Your task to perform on an android device: open a bookmark in the chrome app Image 0: 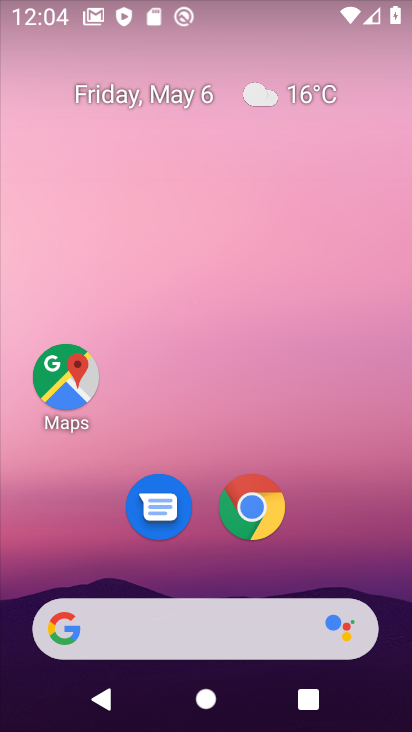
Step 0: click (252, 507)
Your task to perform on an android device: open a bookmark in the chrome app Image 1: 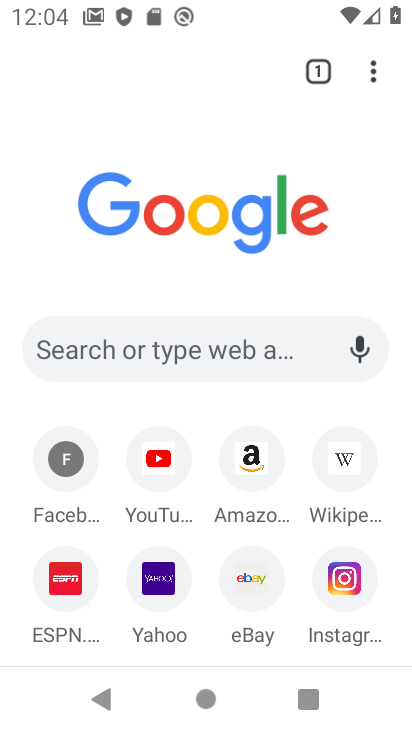
Step 1: click (373, 77)
Your task to perform on an android device: open a bookmark in the chrome app Image 2: 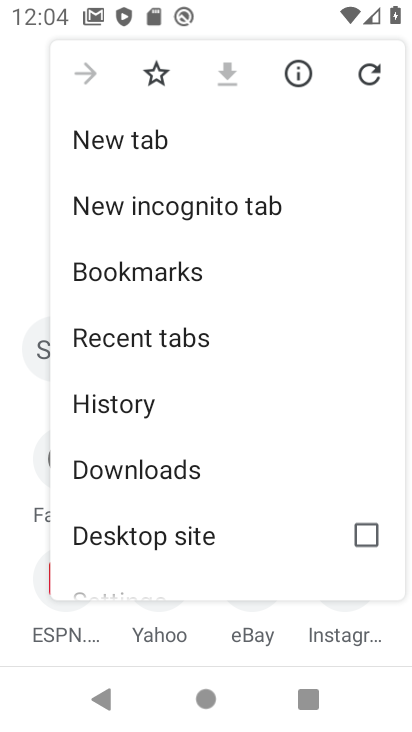
Step 2: click (146, 275)
Your task to perform on an android device: open a bookmark in the chrome app Image 3: 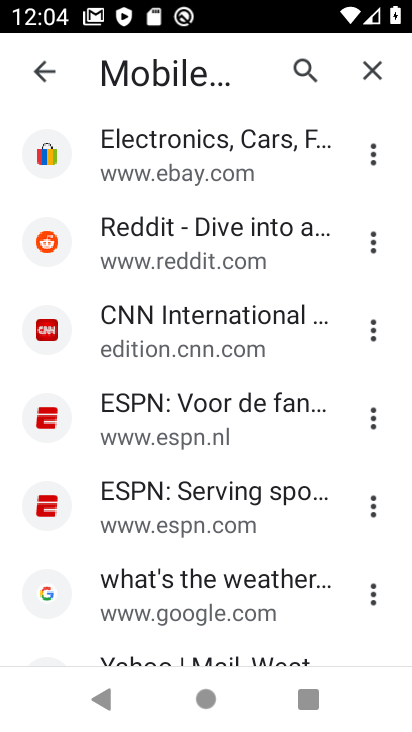
Step 3: click (159, 318)
Your task to perform on an android device: open a bookmark in the chrome app Image 4: 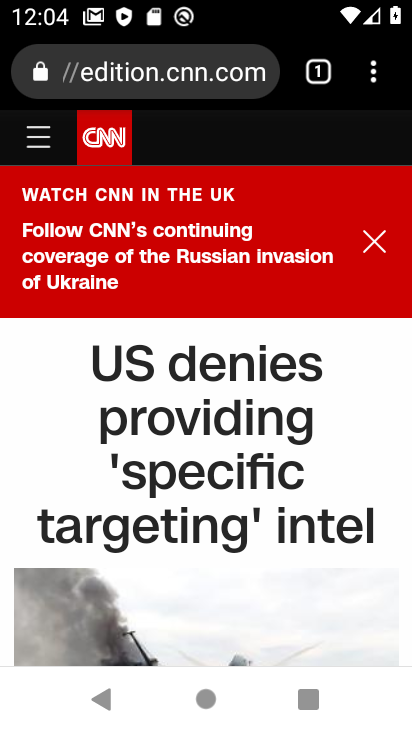
Step 4: task complete